Your task to perform on an android device: turn on translation in the chrome app Image 0: 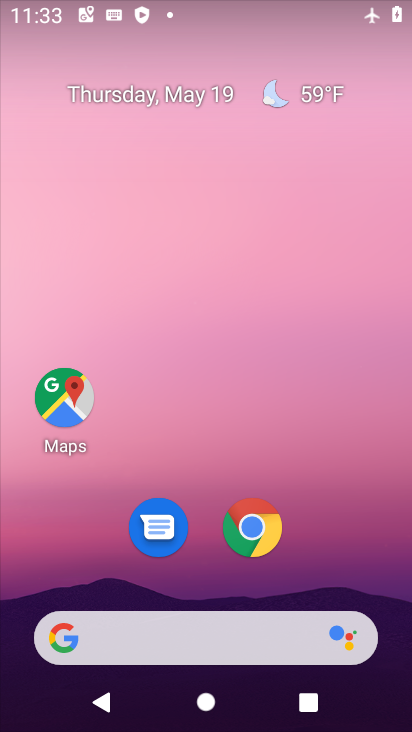
Step 0: click (253, 534)
Your task to perform on an android device: turn on translation in the chrome app Image 1: 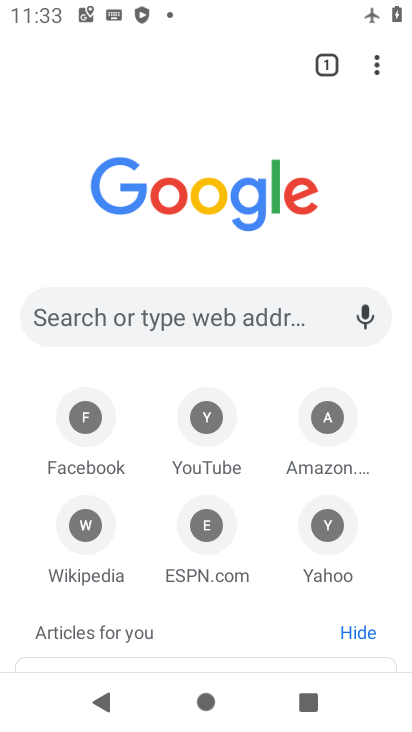
Step 1: click (376, 73)
Your task to perform on an android device: turn on translation in the chrome app Image 2: 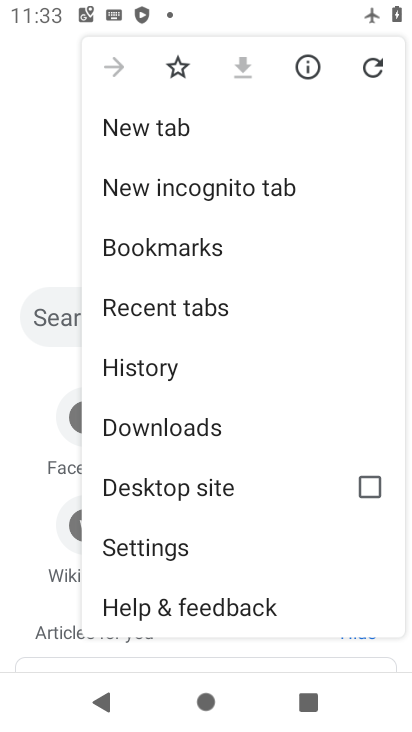
Step 2: click (309, 564)
Your task to perform on an android device: turn on translation in the chrome app Image 3: 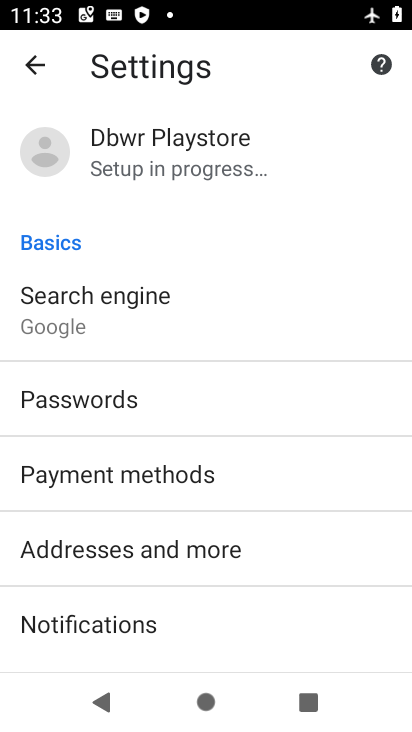
Step 3: drag from (277, 626) to (194, 24)
Your task to perform on an android device: turn on translation in the chrome app Image 4: 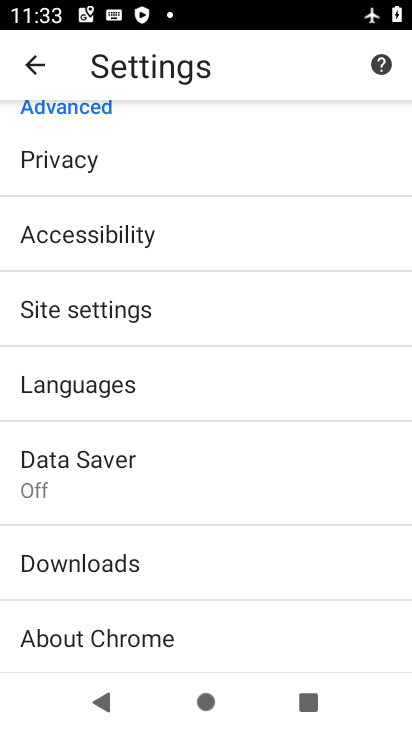
Step 4: click (236, 397)
Your task to perform on an android device: turn on translation in the chrome app Image 5: 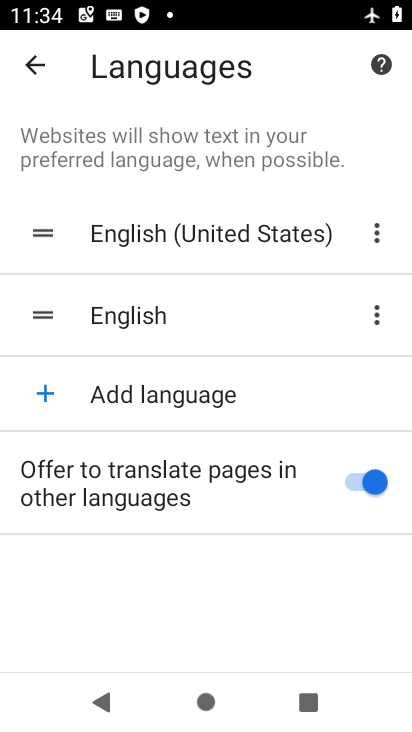
Step 5: task complete